Your task to perform on an android device: Open calendar and show me the third week of next month Image 0: 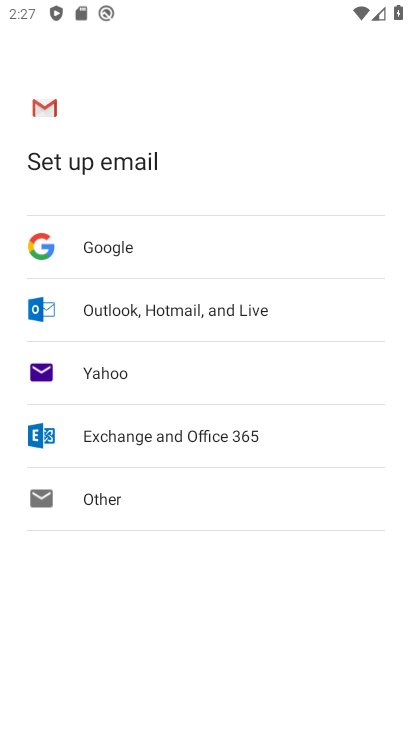
Step 0: press home button
Your task to perform on an android device: Open calendar and show me the third week of next month Image 1: 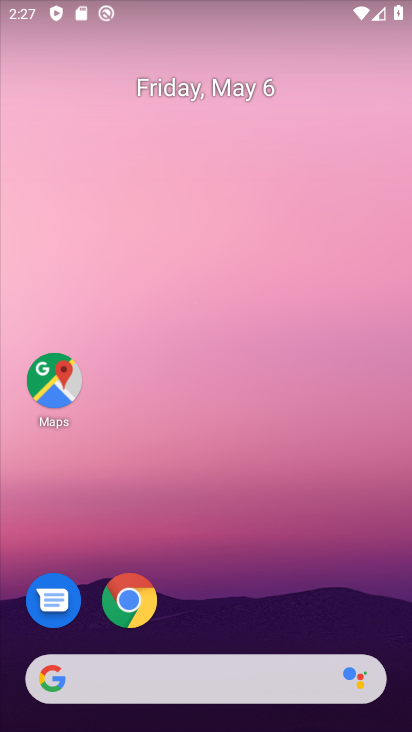
Step 1: drag from (267, 538) to (276, 210)
Your task to perform on an android device: Open calendar and show me the third week of next month Image 2: 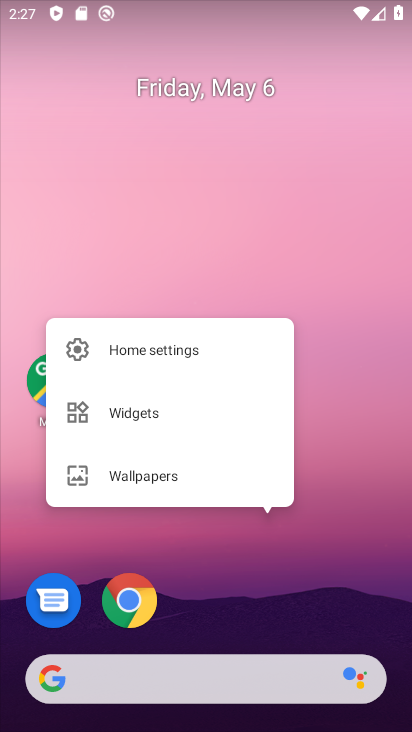
Step 2: drag from (327, 643) to (327, 61)
Your task to perform on an android device: Open calendar and show me the third week of next month Image 3: 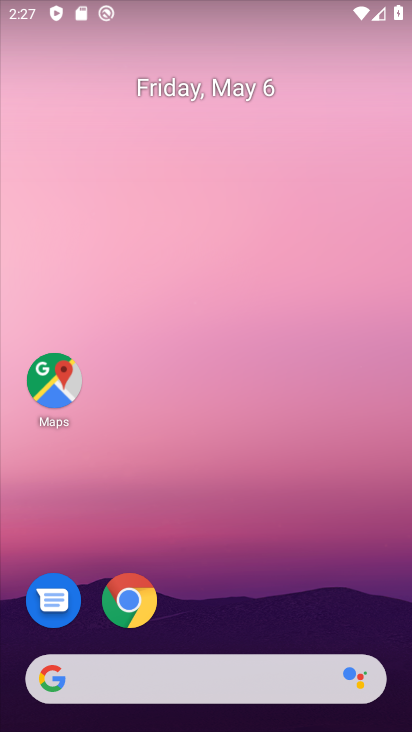
Step 3: drag from (236, 628) to (248, 30)
Your task to perform on an android device: Open calendar and show me the third week of next month Image 4: 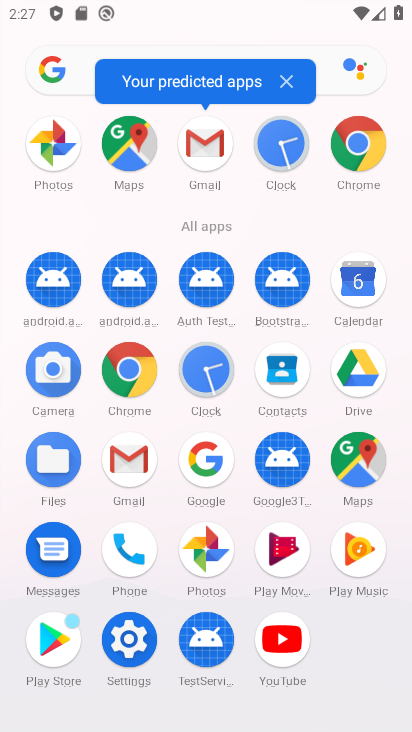
Step 4: click (351, 277)
Your task to perform on an android device: Open calendar and show me the third week of next month Image 5: 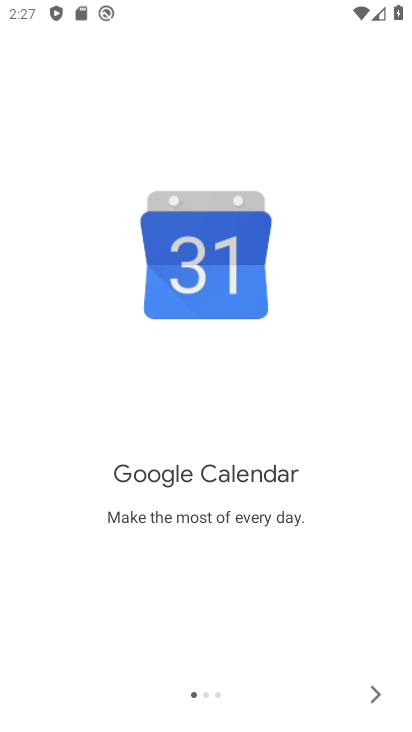
Step 5: click (375, 697)
Your task to perform on an android device: Open calendar and show me the third week of next month Image 6: 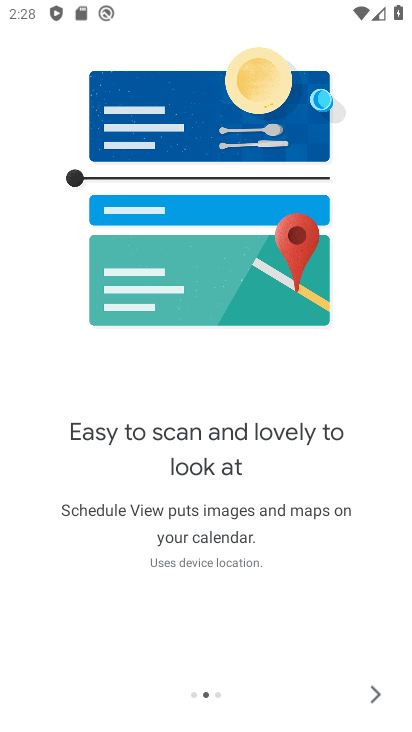
Step 6: click (375, 697)
Your task to perform on an android device: Open calendar and show me the third week of next month Image 7: 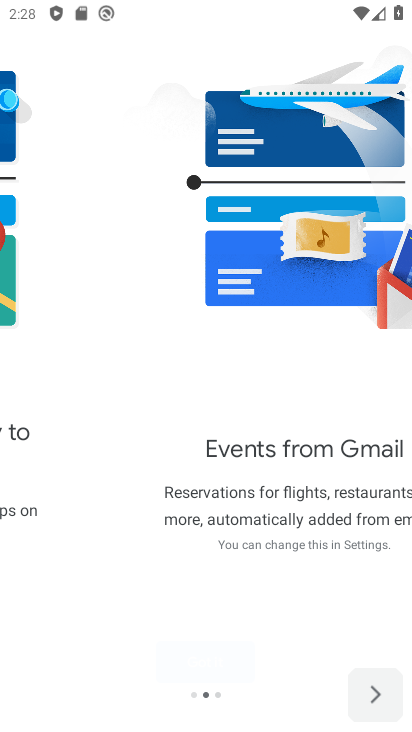
Step 7: click (375, 697)
Your task to perform on an android device: Open calendar and show me the third week of next month Image 8: 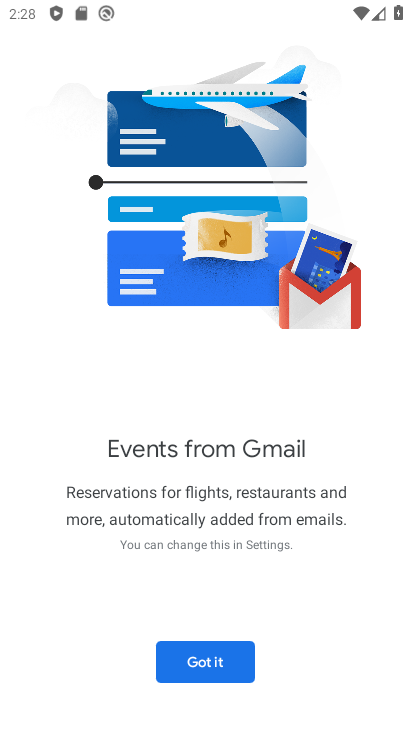
Step 8: click (222, 670)
Your task to perform on an android device: Open calendar and show me the third week of next month Image 9: 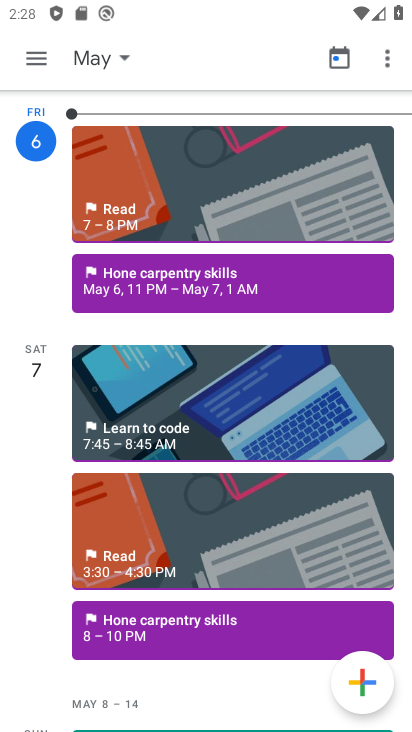
Step 9: click (40, 78)
Your task to perform on an android device: Open calendar and show me the third week of next month Image 10: 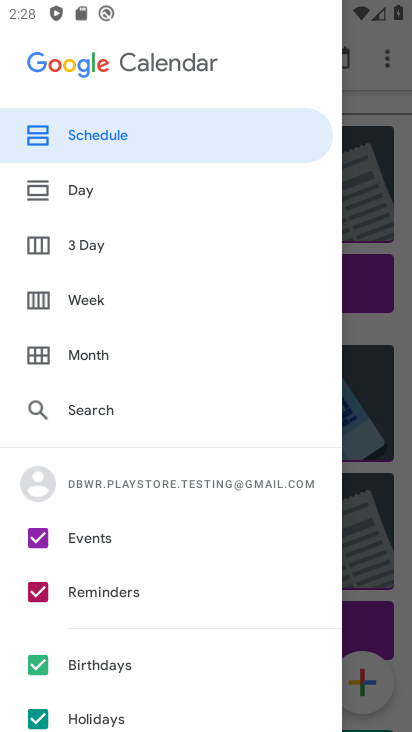
Step 10: click (93, 316)
Your task to perform on an android device: Open calendar and show me the third week of next month Image 11: 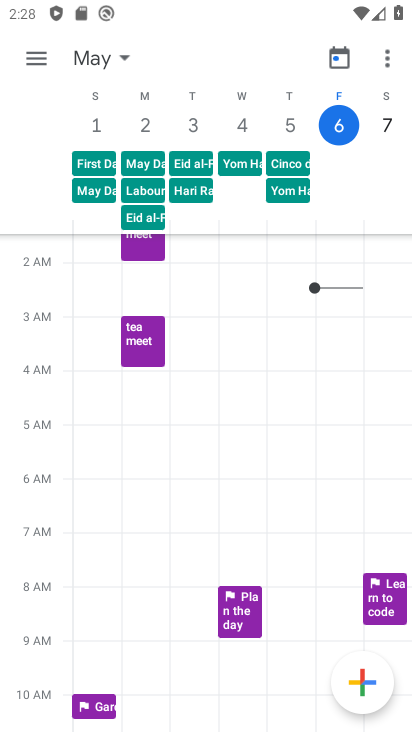
Step 11: click (126, 69)
Your task to perform on an android device: Open calendar and show me the third week of next month Image 12: 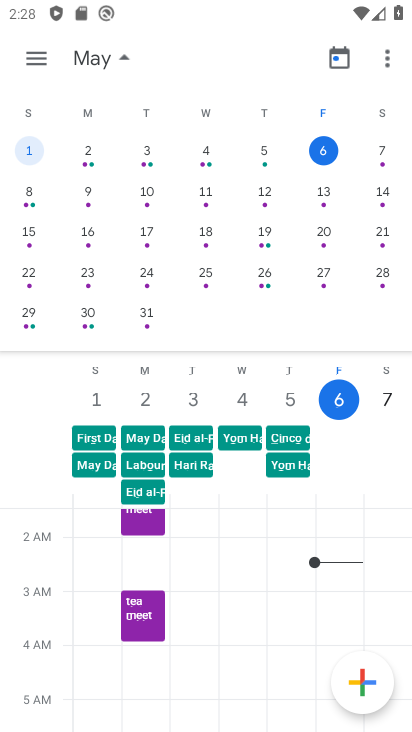
Step 12: drag from (383, 212) to (48, 221)
Your task to perform on an android device: Open calendar and show me the third week of next month Image 13: 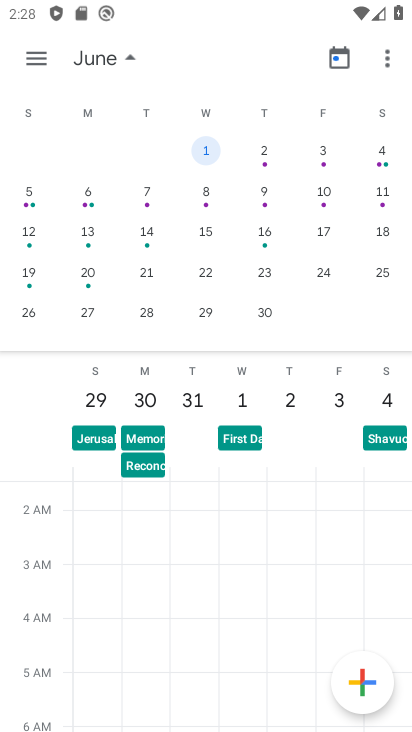
Step 13: click (208, 272)
Your task to perform on an android device: Open calendar and show me the third week of next month Image 14: 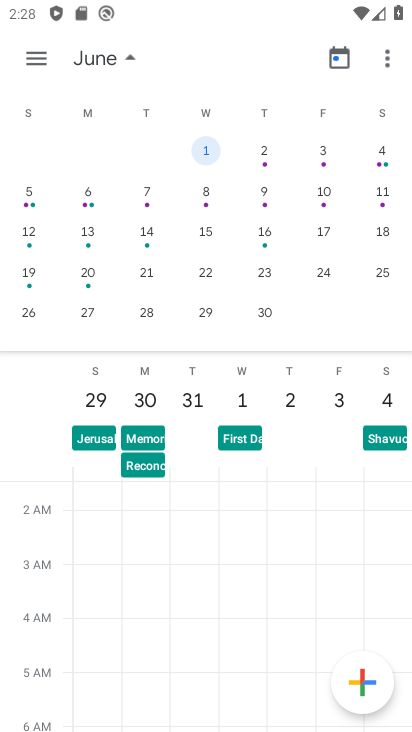
Step 14: click (208, 272)
Your task to perform on an android device: Open calendar and show me the third week of next month Image 15: 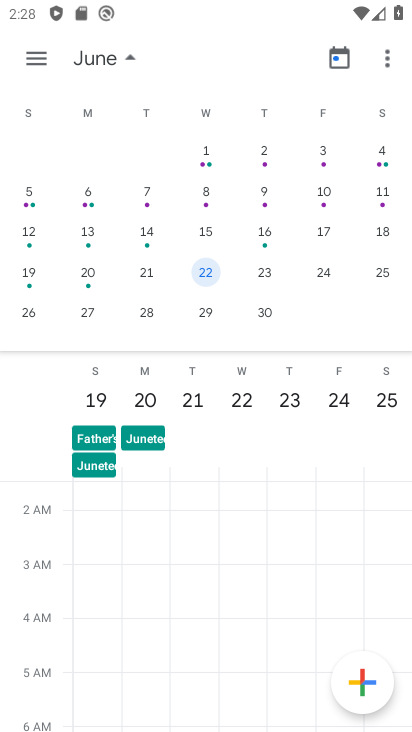
Step 15: click (125, 57)
Your task to perform on an android device: Open calendar and show me the third week of next month Image 16: 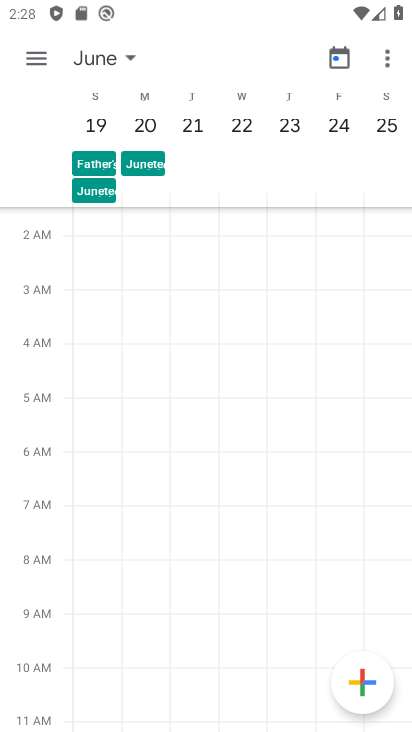
Step 16: task complete